Your task to perform on an android device: change text size in settings app Image 0: 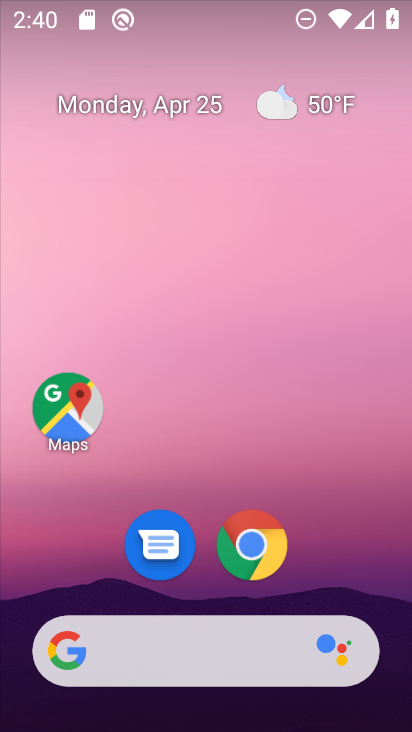
Step 0: drag from (310, 570) to (204, 103)
Your task to perform on an android device: change text size in settings app Image 1: 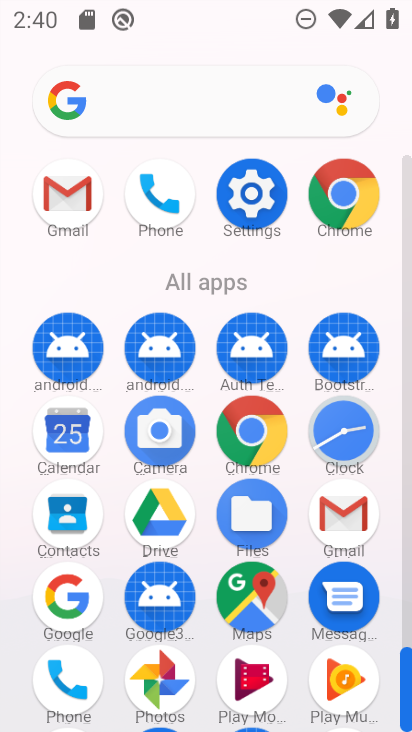
Step 1: click (244, 201)
Your task to perform on an android device: change text size in settings app Image 2: 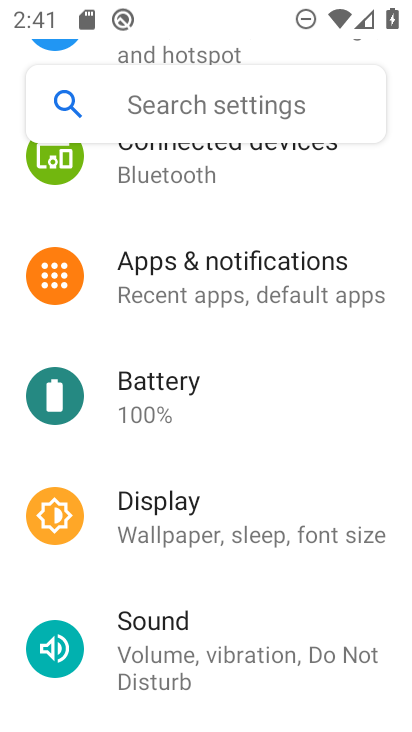
Step 2: click (247, 529)
Your task to perform on an android device: change text size in settings app Image 3: 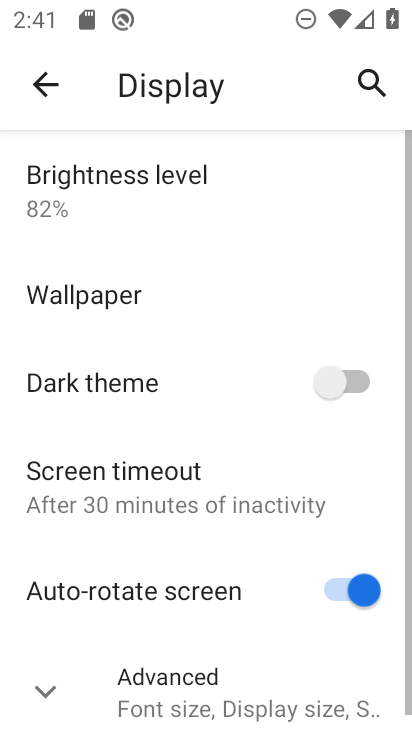
Step 3: click (191, 687)
Your task to perform on an android device: change text size in settings app Image 4: 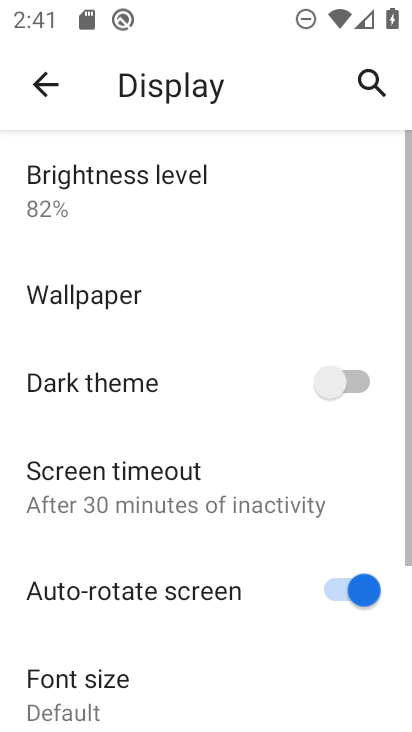
Step 4: click (162, 689)
Your task to perform on an android device: change text size in settings app Image 5: 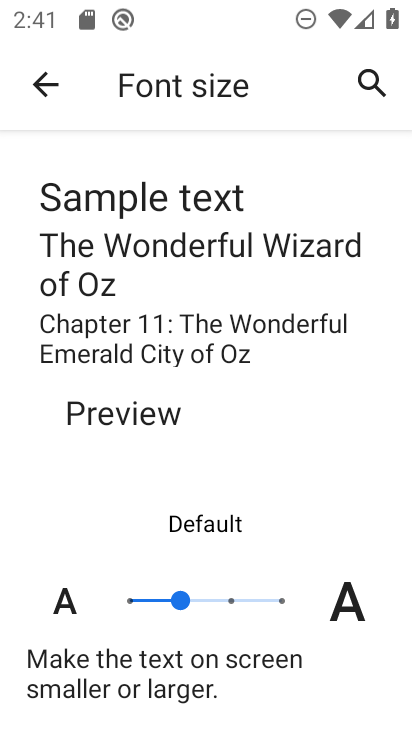
Step 5: click (229, 596)
Your task to perform on an android device: change text size in settings app Image 6: 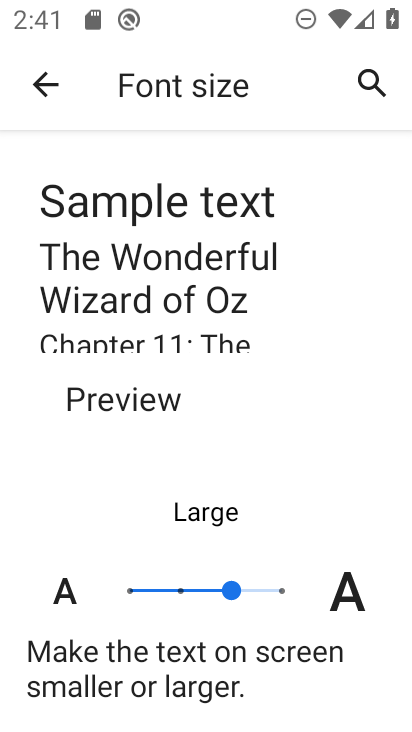
Step 6: task complete